Your task to perform on an android device: When is my next meeting? Image 0: 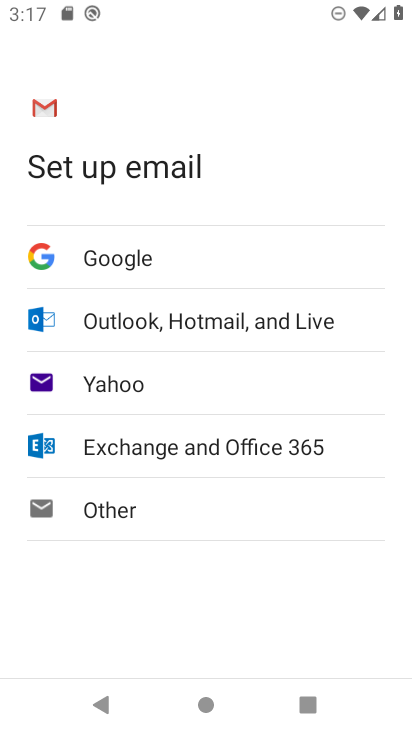
Step 0: press home button
Your task to perform on an android device: When is my next meeting? Image 1: 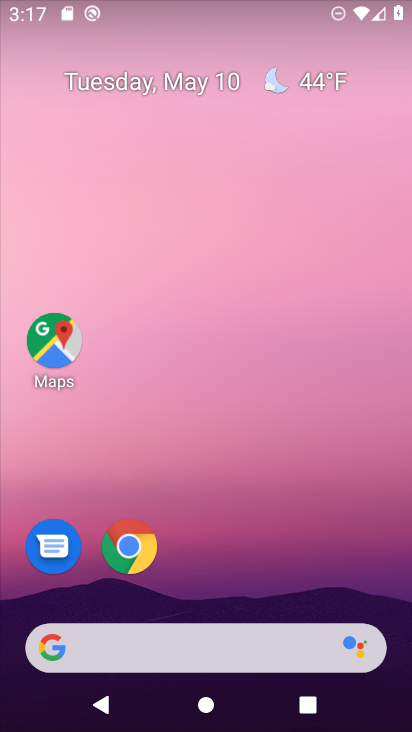
Step 1: drag from (260, 476) to (214, 15)
Your task to perform on an android device: When is my next meeting? Image 2: 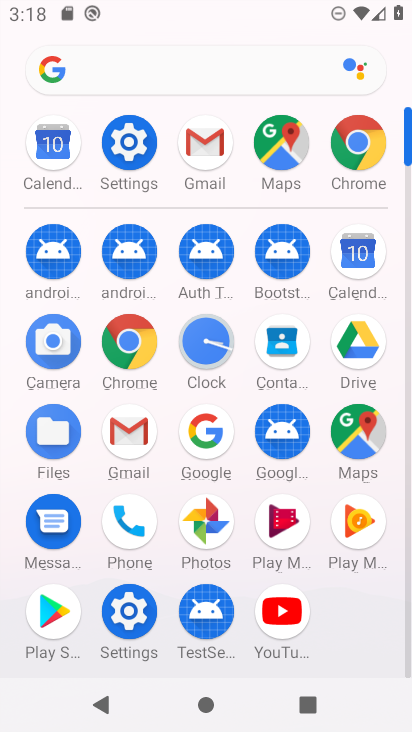
Step 2: click (47, 142)
Your task to perform on an android device: When is my next meeting? Image 3: 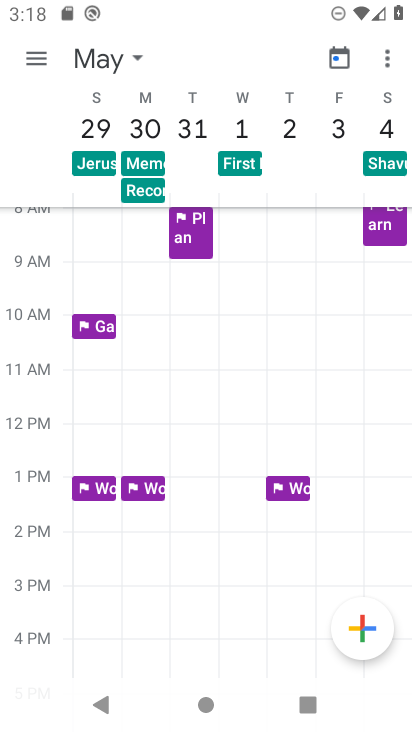
Step 3: drag from (396, 121) to (86, 98)
Your task to perform on an android device: When is my next meeting? Image 4: 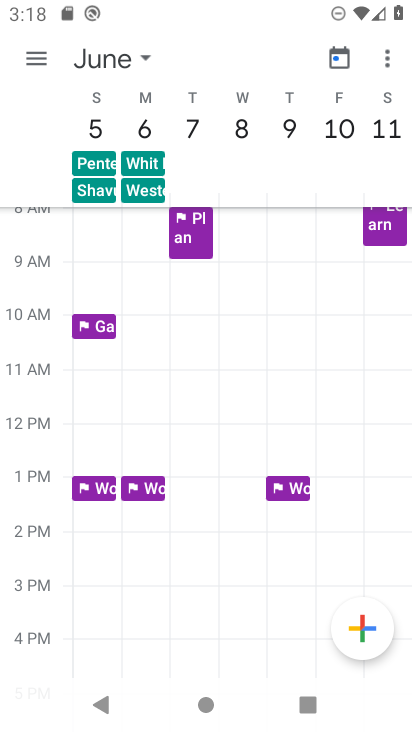
Step 4: drag from (173, 117) to (134, 59)
Your task to perform on an android device: When is my next meeting? Image 5: 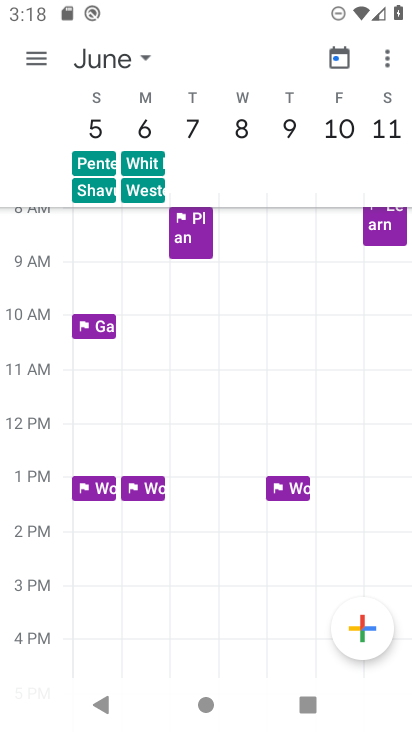
Step 5: drag from (83, 115) to (402, 146)
Your task to perform on an android device: When is my next meeting? Image 6: 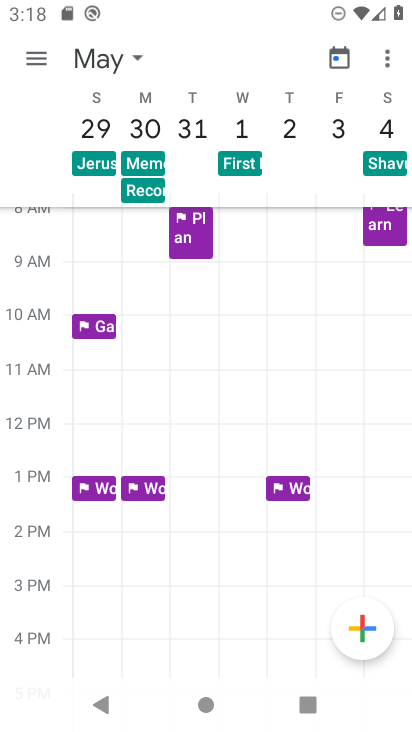
Step 6: drag from (219, 175) to (143, 74)
Your task to perform on an android device: When is my next meeting? Image 7: 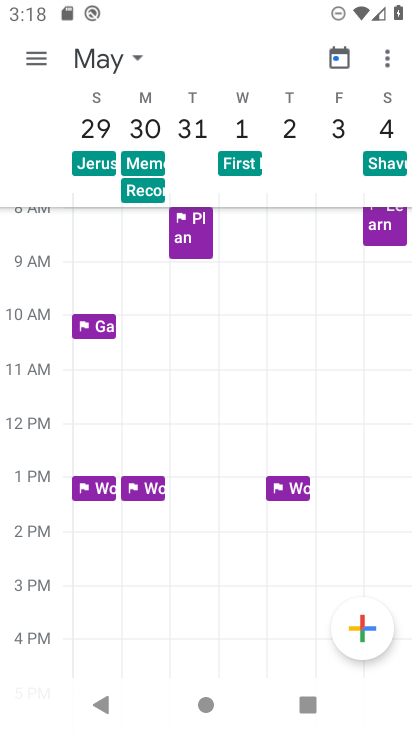
Step 7: click (138, 60)
Your task to perform on an android device: When is my next meeting? Image 8: 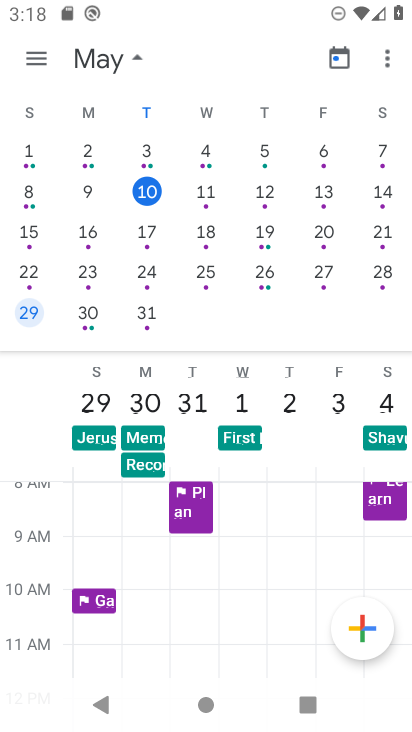
Step 8: click (151, 194)
Your task to perform on an android device: When is my next meeting? Image 9: 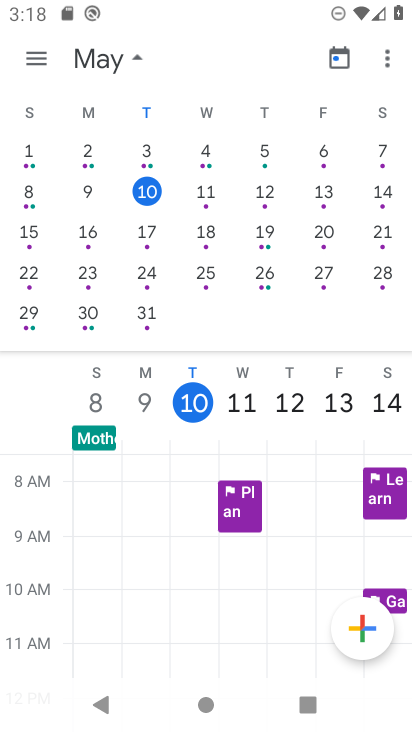
Step 9: task complete